Your task to perform on an android device: empty trash in google photos Image 0: 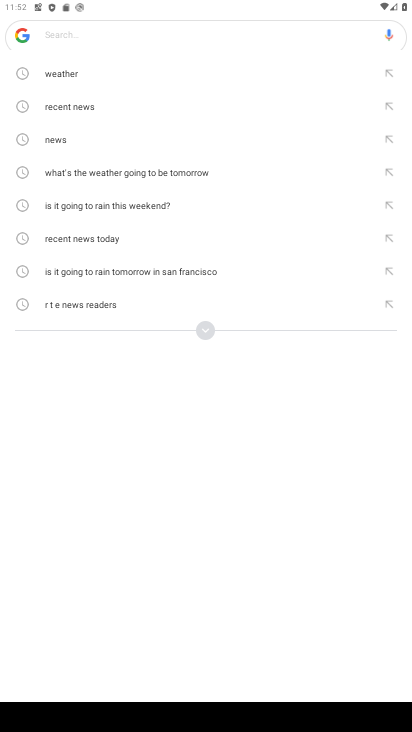
Step 0: press home button
Your task to perform on an android device: empty trash in google photos Image 1: 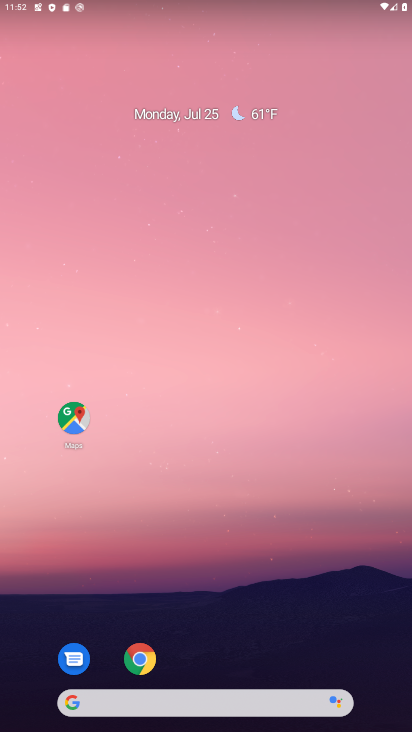
Step 1: drag from (222, 714) to (225, 135)
Your task to perform on an android device: empty trash in google photos Image 2: 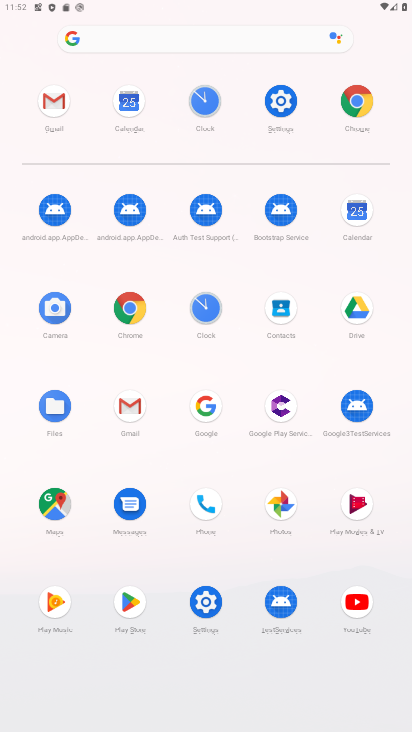
Step 2: click (277, 503)
Your task to perform on an android device: empty trash in google photos Image 3: 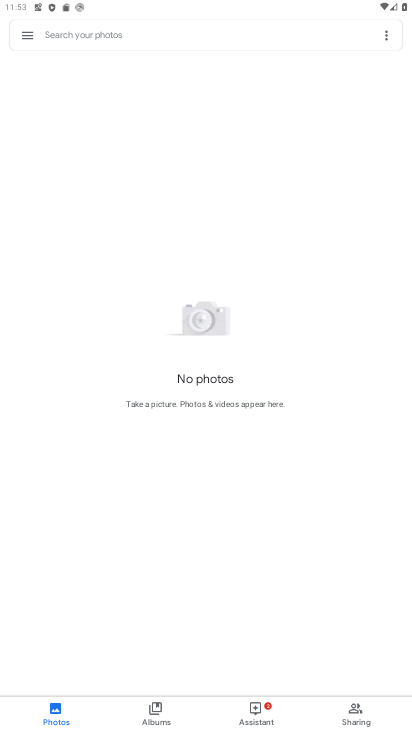
Step 3: click (27, 37)
Your task to perform on an android device: empty trash in google photos Image 4: 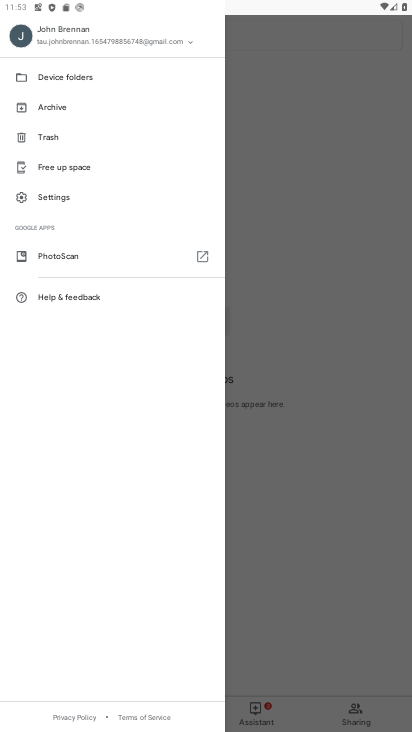
Step 4: click (45, 135)
Your task to perform on an android device: empty trash in google photos Image 5: 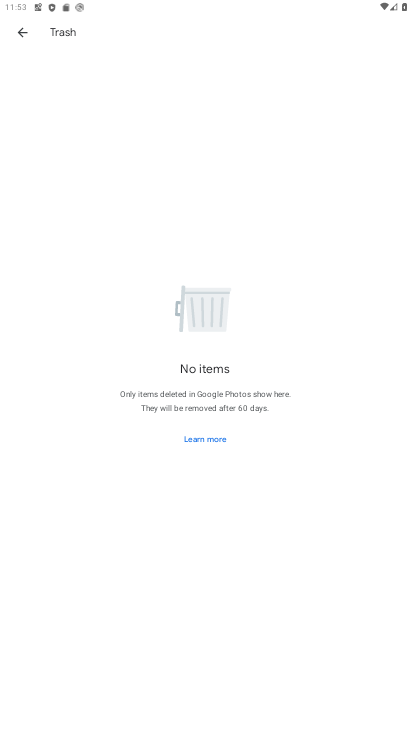
Step 5: task complete